Your task to perform on an android device: turn on wifi Image 0: 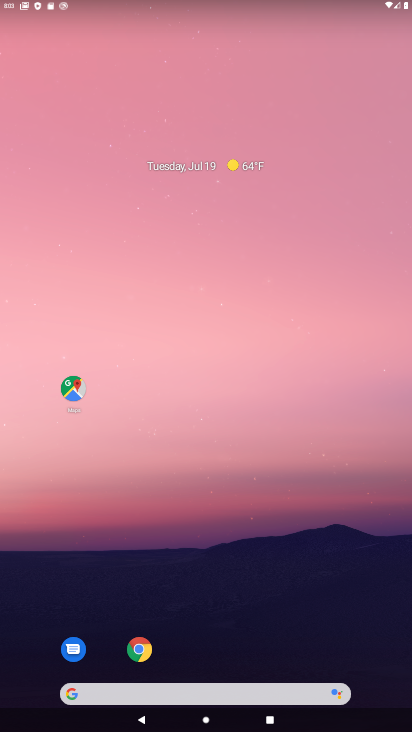
Step 0: drag from (195, 652) to (191, 56)
Your task to perform on an android device: turn on wifi Image 1: 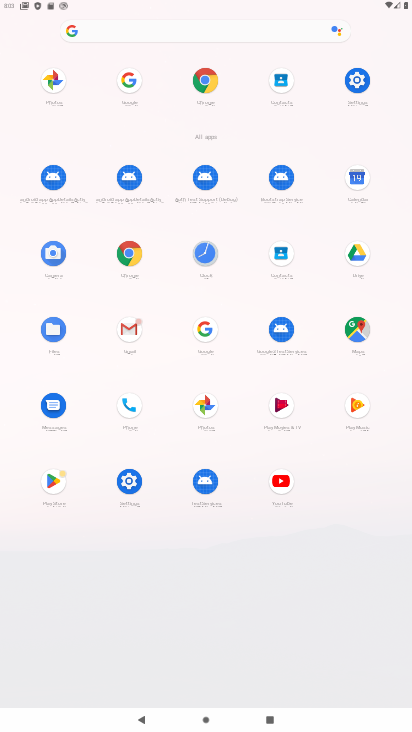
Step 1: click (355, 75)
Your task to perform on an android device: turn on wifi Image 2: 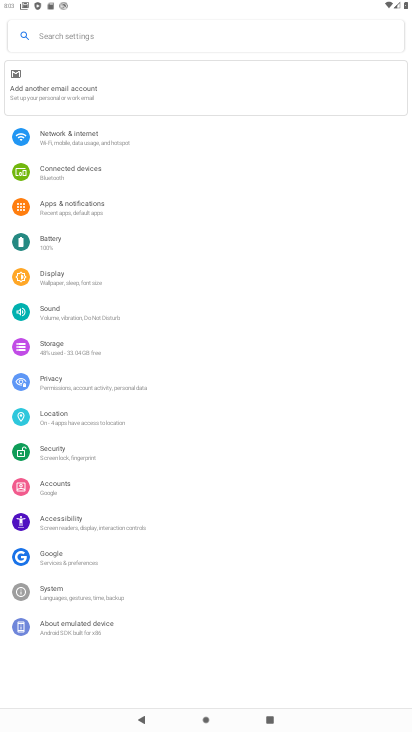
Step 2: click (133, 152)
Your task to perform on an android device: turn on wifi Image 3: 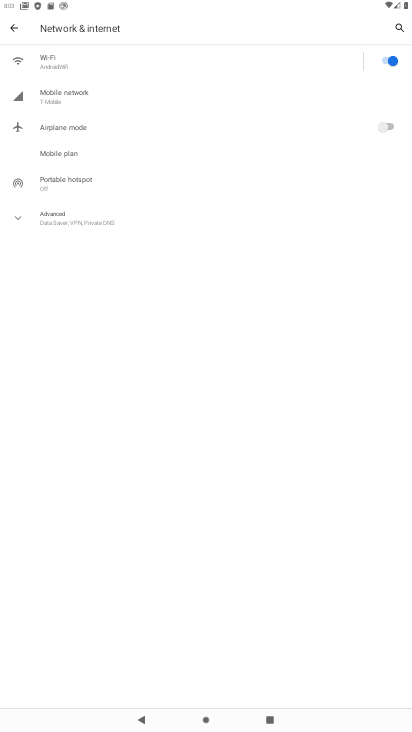
Step 3: task complete